Your task to perform on an android device: toggle improve location accuracy Image 0: 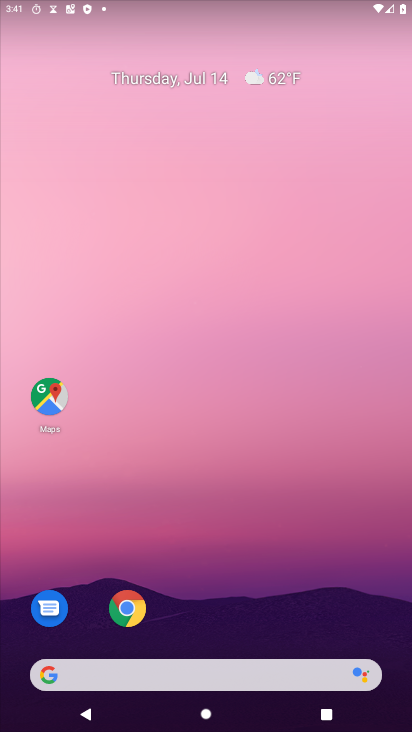
Step 0: drag from (185, 671) to (201, 101)
Your task to perform on an android device: toggle improve location accuracy Image 1: 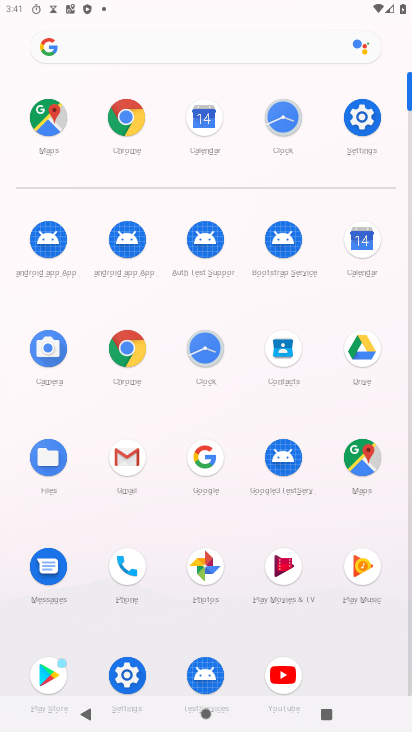
Step 1: click (371, 130)
Your task to perform on an android device: toggle improve location accuracy Image 2: 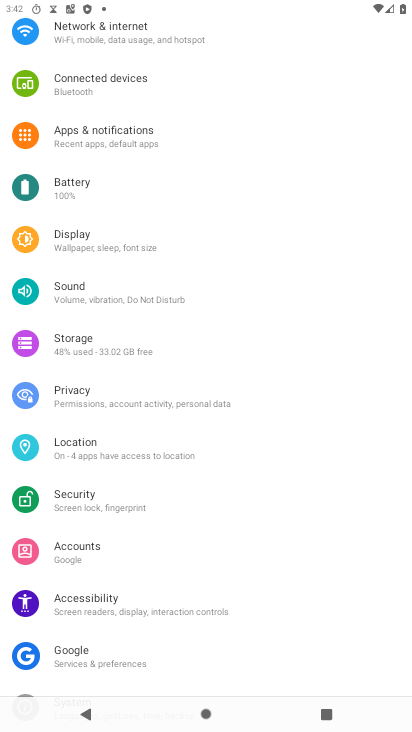
Step 2: click (77, 442)
Your task to perform on an android device: toggle improve location accuracy Image 3: 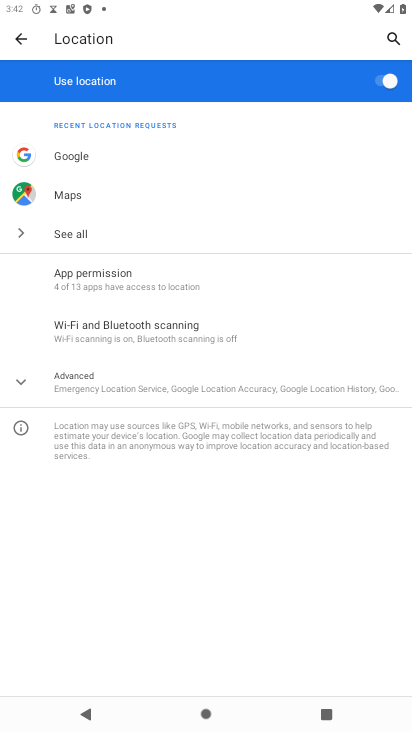
Step 3: click (126, 376)
Your task to perform on an android device: toggle improve location accuracy Image 4: 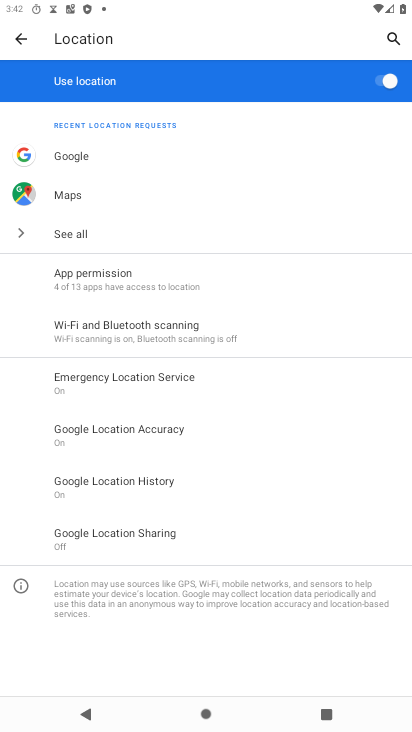
Step 4: click (135, 442)
Your task to perform on an android device: toggle improve location accuracy Image 5: 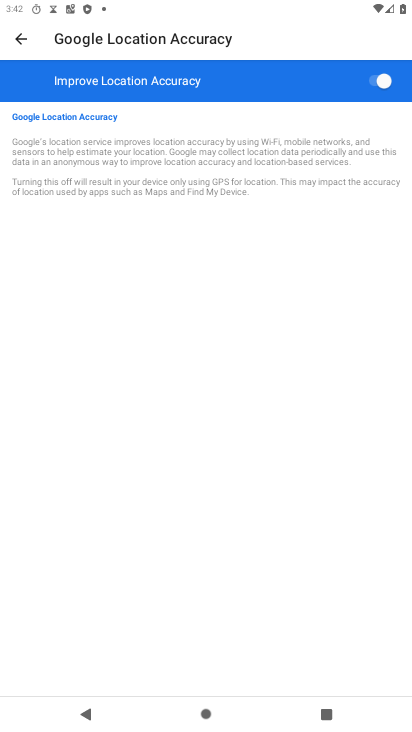
Step 5: click (370, 89)
Your task to perform on an android device: toggle improve location accuracy Image 6: 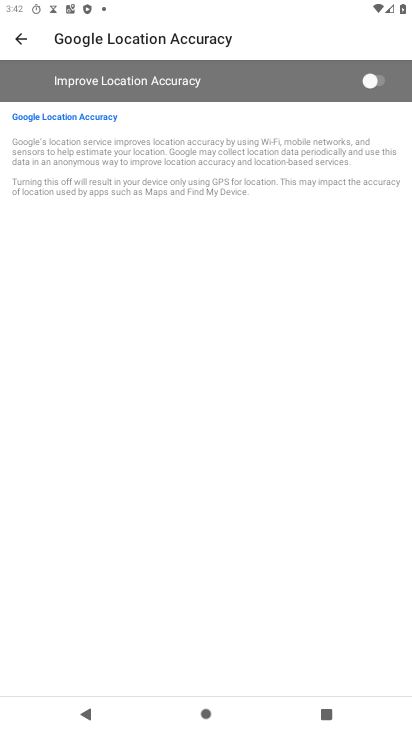
Step 6: task complete